Your task to perform on an android device: Go to accessibility settings Image 0: 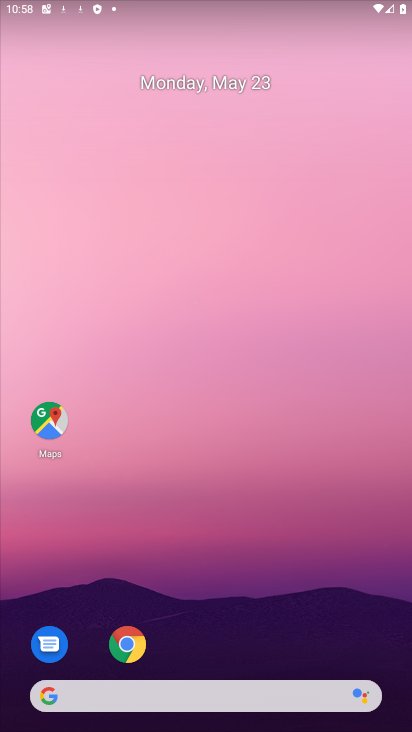
Step 0: drag from (266, 701) to (257, 128)
Your task to perform on an android device: Go to accessibility settings Image 1: 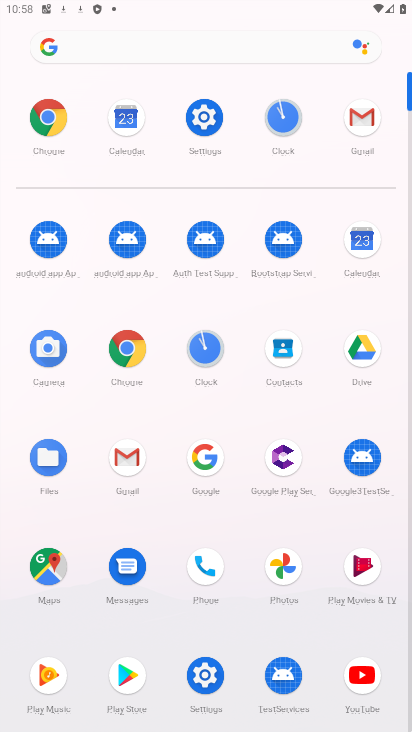
Step 1: click (209, 134)
Your task to perform on an android device: Go to accessibility settings Image 2: 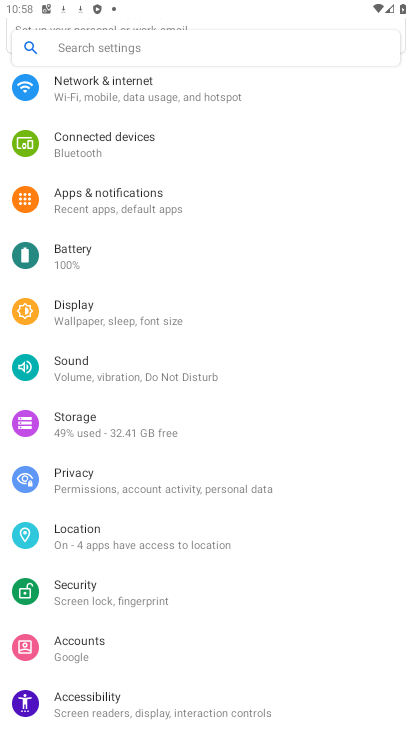
Step 2: click (115, 53)
Your task to perform on an android device: Go to accessibility settings Image 3: 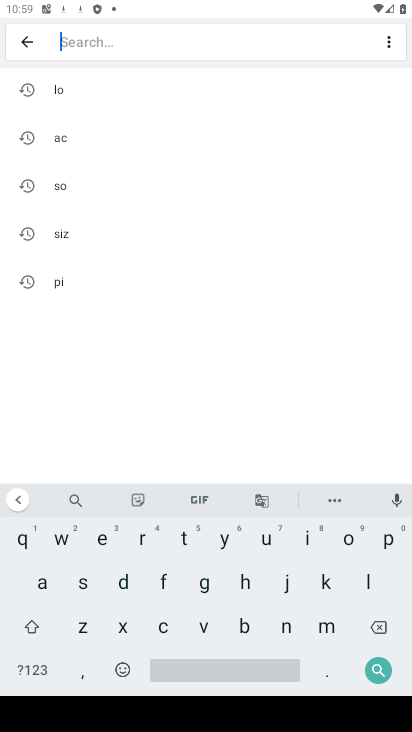
Step 3: click (48, 575)
Your task to perform on an android device: Go to accessibility settings Image 4: 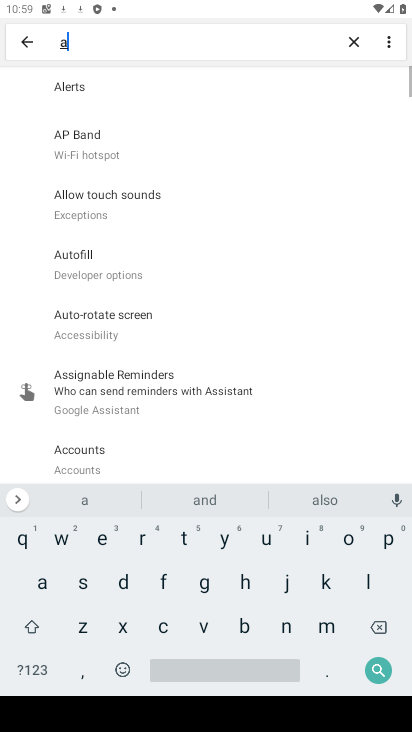
Step 4: click (156, 627)
Your task to perform on an android device: Go to accessibility settings Image 5: 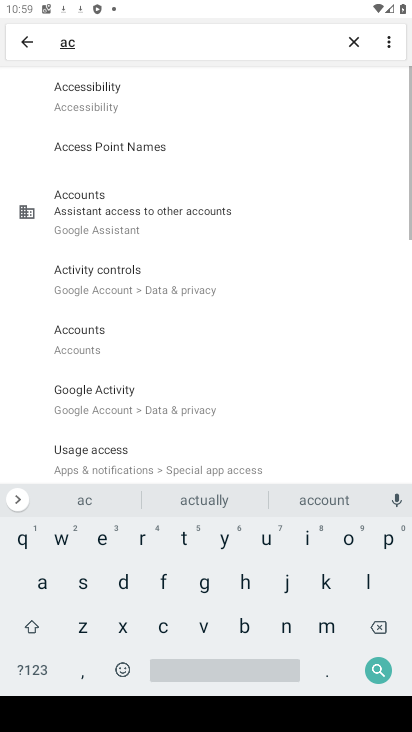
Step 5: click (129, 100)
Your task to perform on an android device: Go to accessibility settings Image 6: 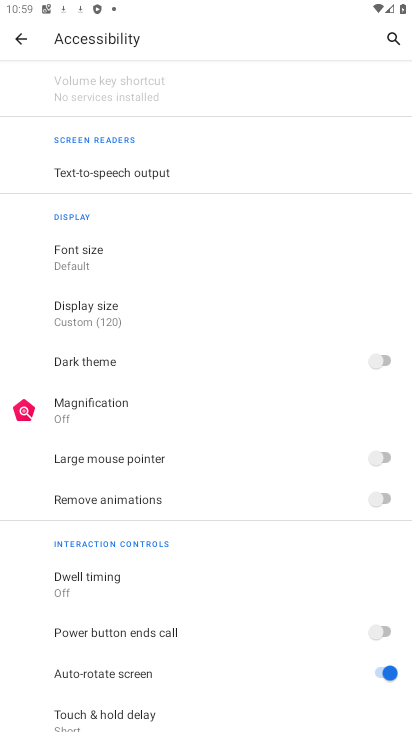
Step 6: task complete